Your task to perform on an android device: change the clock display to show seconds Image 0: 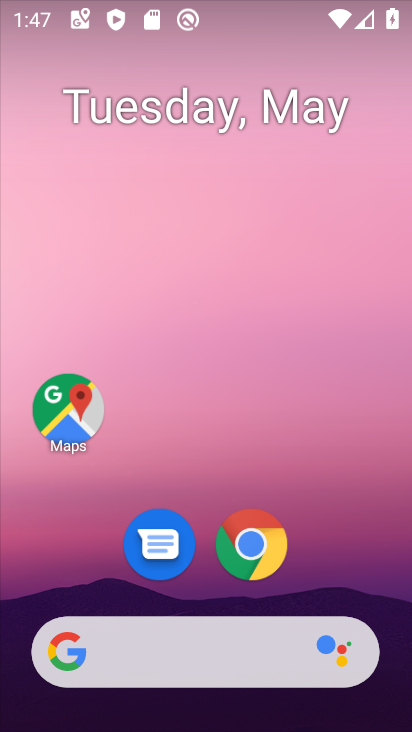
Step 0: drag from (343, 597) to (352, 173)
Your task to perform on an android device: change the clock display to show seconds Image 1: 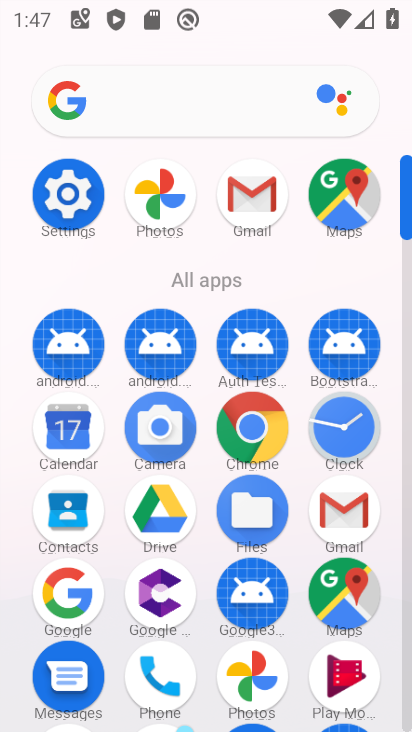
Step 1: click (338, 419)
Your task to perform on an android device: change the clock display to show seconds Image 2: 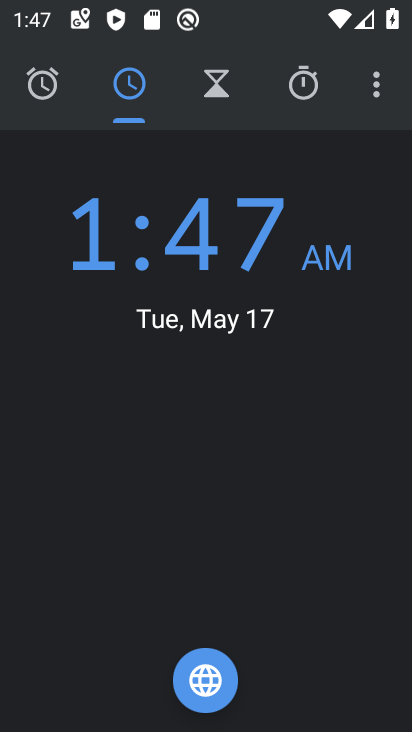
Step 2: click (379, 100)
Your task to perform on an android device: change the clock display to show seconds Image 3: 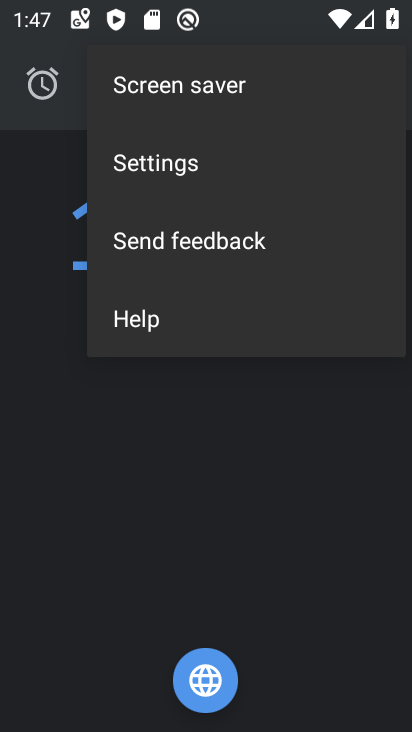
Step 3: click (214, 155)
Your task to perform on an android device: change the clock display to show seconds Image 4: 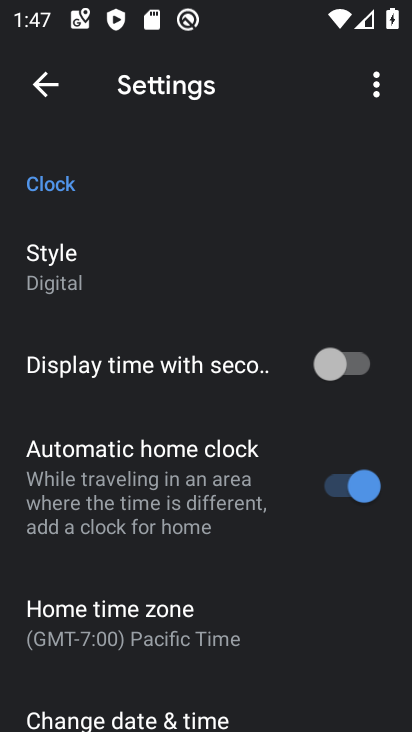
Step 4: click (342, 384)
Your task to perform on an android device: change the clock display to show seconds Image 5: 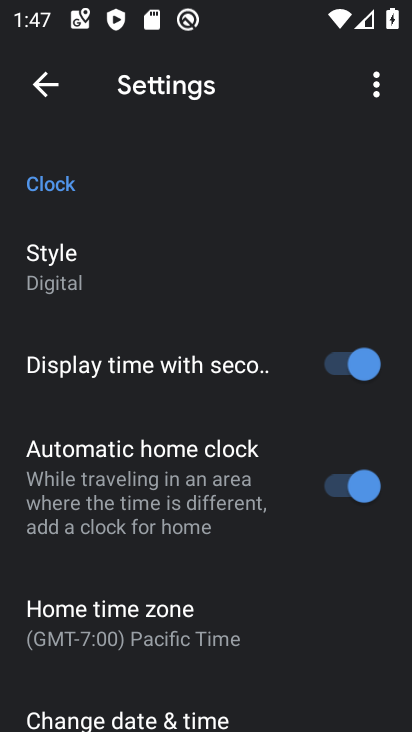
Step 5: task complete